Your task to perform on an android device: Clear the shopping cart on bestbuy.com. Image 0: 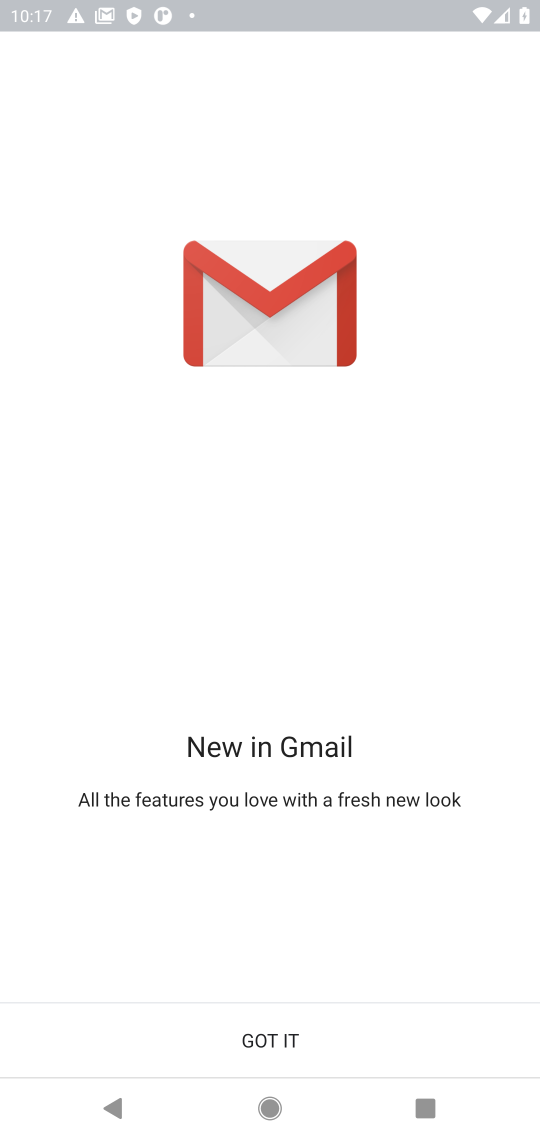
Step 0: press home button
Your task to perform on an android device: Clear the shopping cart on bestbuy.com. Image 1: 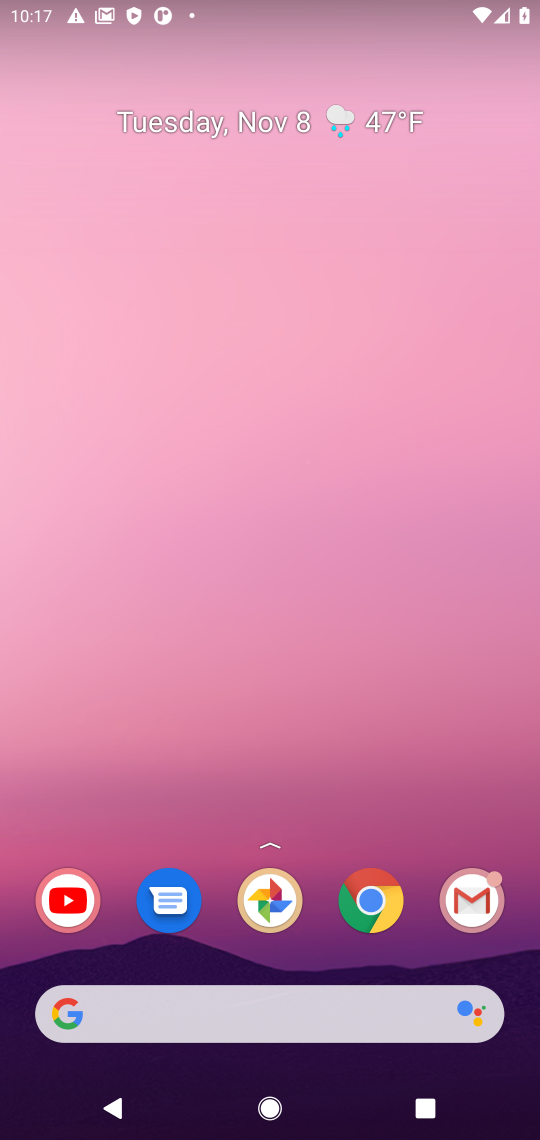
Step 1: click (374, 906)
Your task to perform on an android device: Clear the shopping cart on bestbuy.com. Image 2: 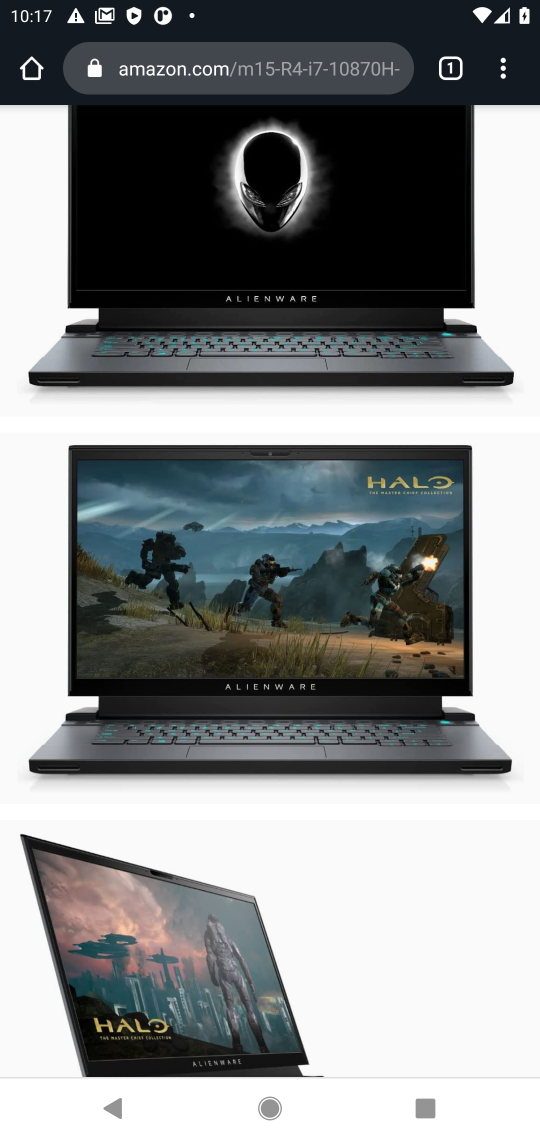
Step 2: task complete